Your task to perform on an android device: Open wifi settings Image 0: 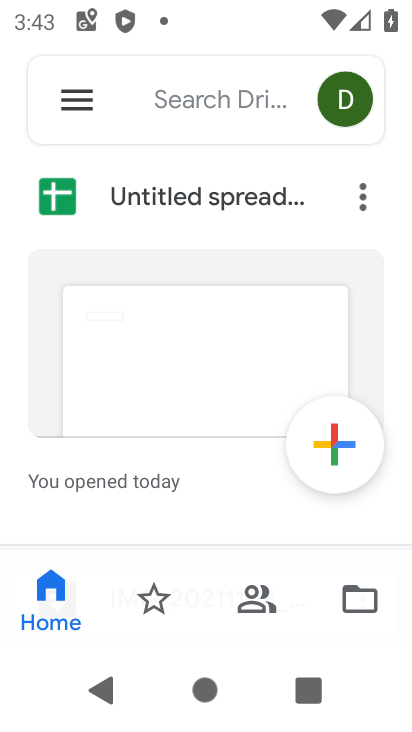
Step 0: task complete